Your task to perform on an android device: toggle airplane mode Image 0: 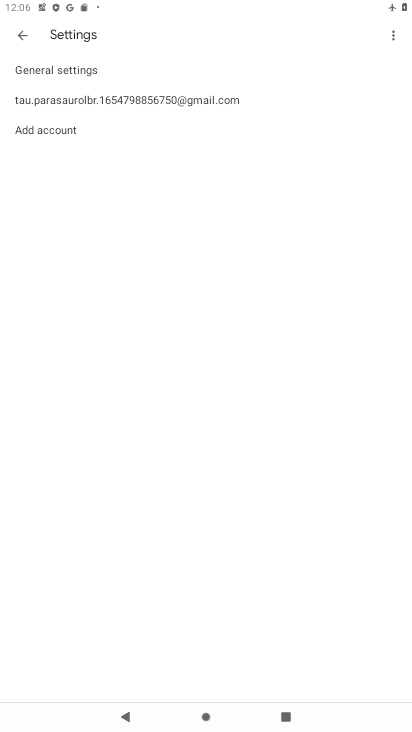
Step 0: press home button
Your task to perform on an android device: toggle airplane mode Image 1: 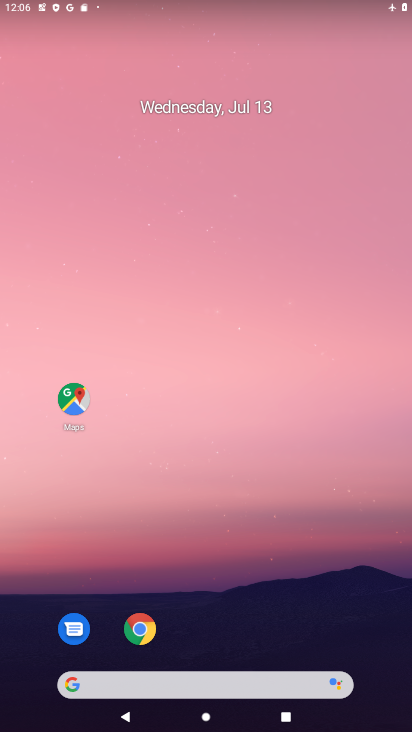
Step 1: drag from (165, 582) to (226, 277)
Your task to perform on an android device: toggle airplane mode Image 2: 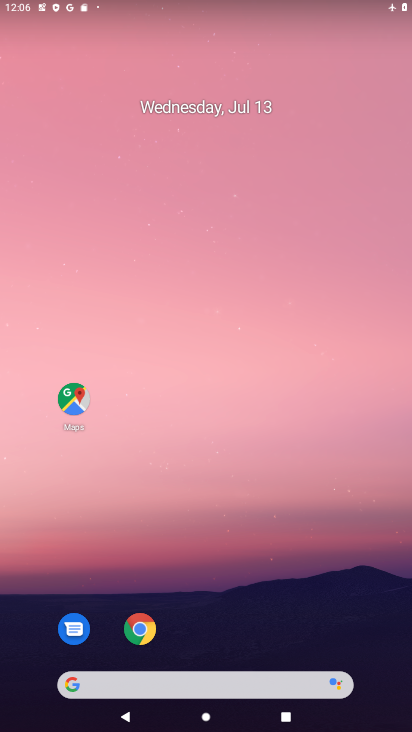
Step 2: drag from (159, 659) to (163, 356)
Your task to perform on an android device: toggle airplane mode Image 3: 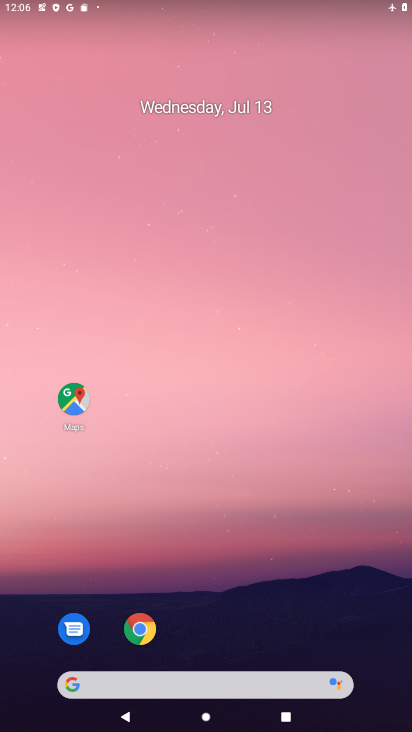
Step 3: drag from (264, 608) to (332, 217)
Your task to perform on an android device: toggle airplane mode Image 4: 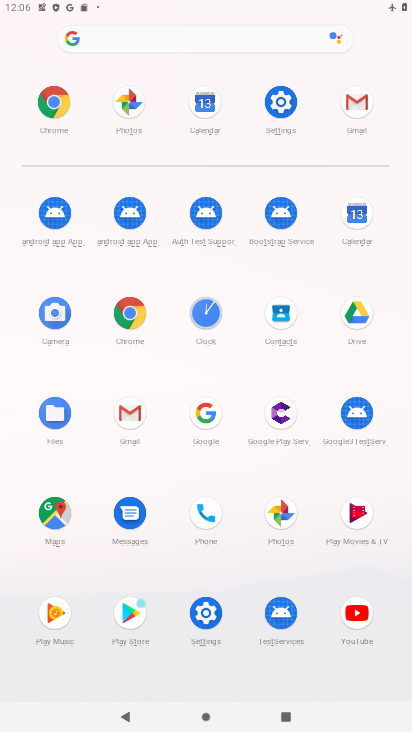
Step 4: click (284, 100)
Your task to perform on an android device: toggle airplane mode Image 5: 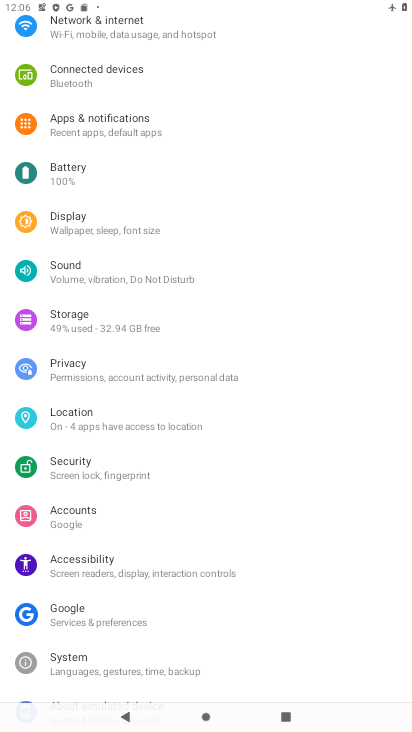
Step 5: drag from (137, 87) to (138, 393)
Your task to perform on an android device: toggle airplane mode Image 6: 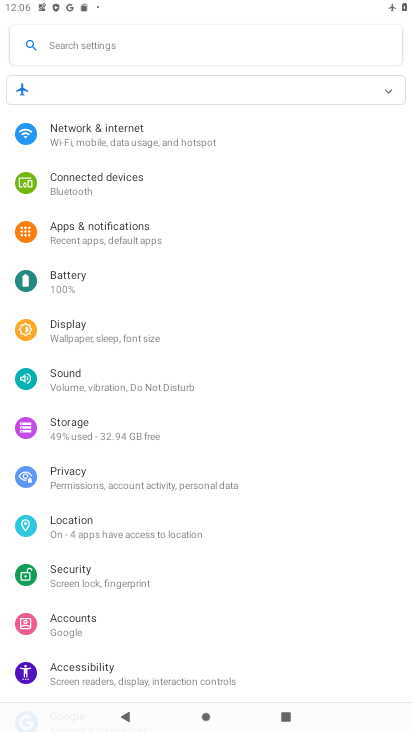
Step 6: click (157, 138)
Your task to perform on an android device: toggle airplane mode Image 7: 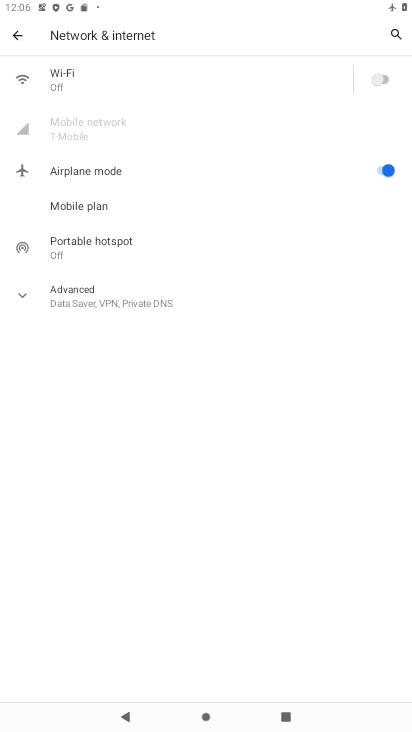
Step 7: click (381, 167)
Your task to perform on an android device: toggle airplane mode Image 8: 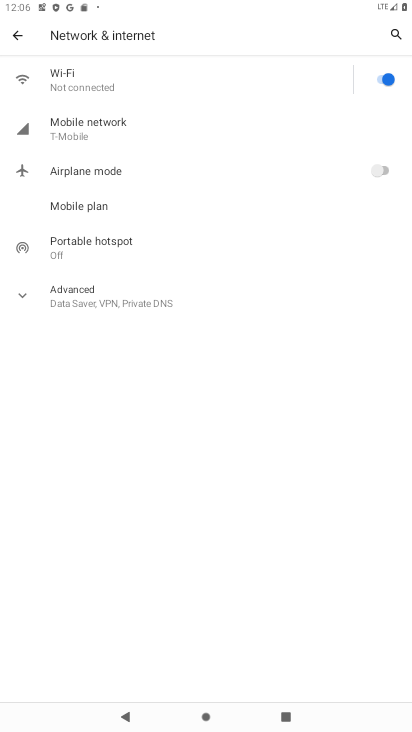
Step 8: task complete